Your task to perform on an android device: check data usage Image 0: 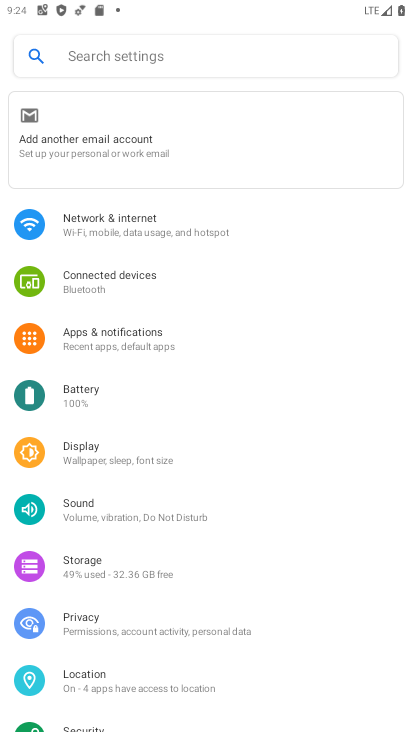
Step 0: press home button
Your task to perform on an android device: check data usage Image 1: 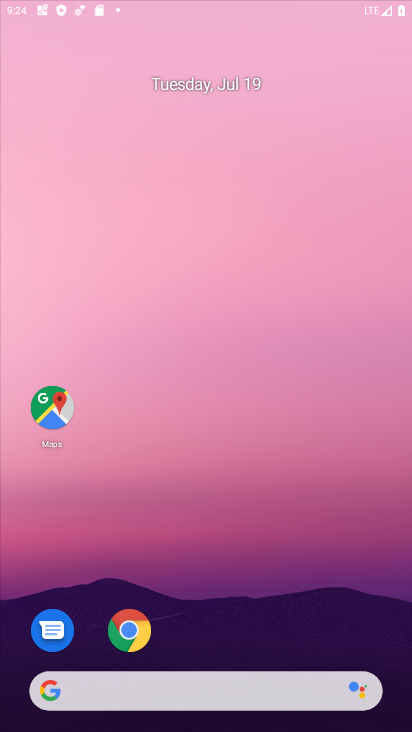
Step 1: drag from (223, 618) to (271, 100)
Your task to perform on an android device: check data usage Image 2: 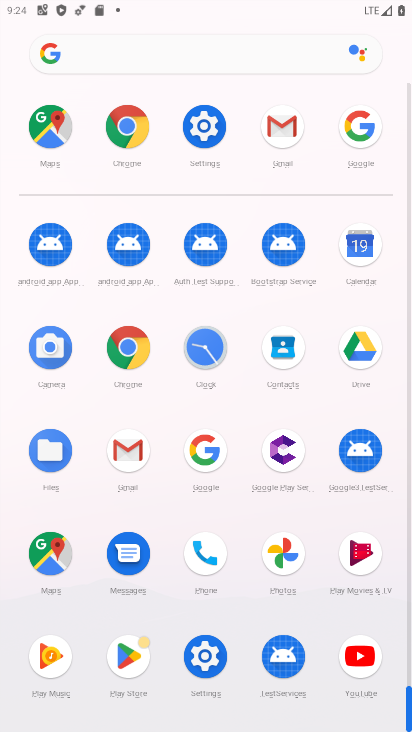
Step 2: click (203, 117)
Your task to perform on an android device: check data usage Image 3: 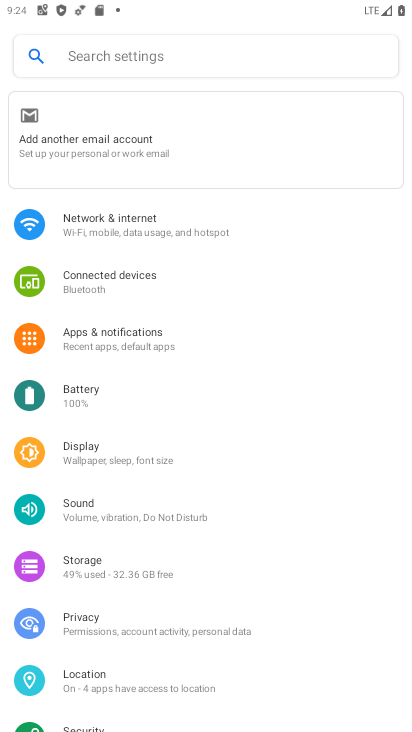
Step 3: click (126, 242)
Your task to perform on an android device: check data usage Image 4: 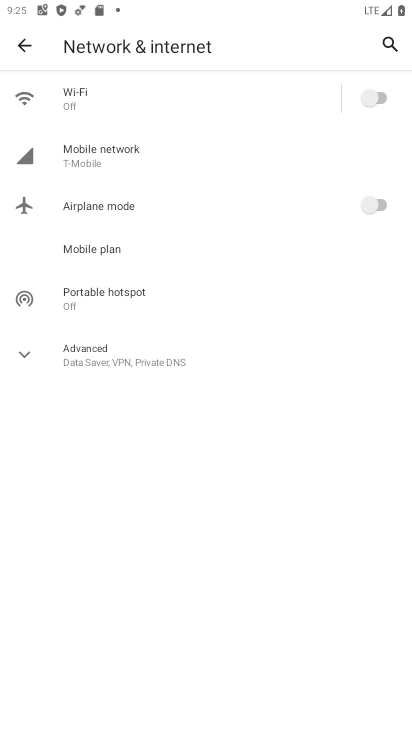
Step 4: click (125, 164)
Your task to perform on an android device: check data usage Image 5: 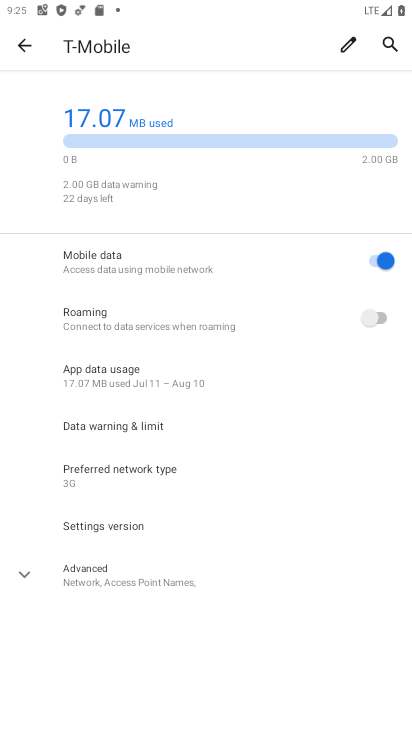
Step 5: click (147, 393)
Your task to perform on an android device: check data usage Image 6: 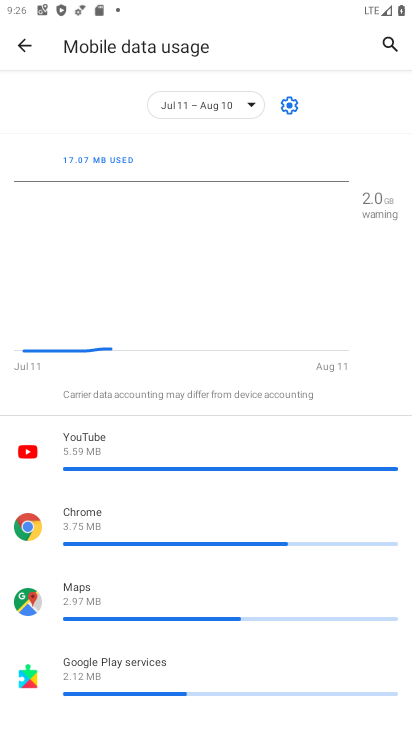
Step 6: task complete